Your task to perform on an android device: delete browsing data in the chrome app Image 0: 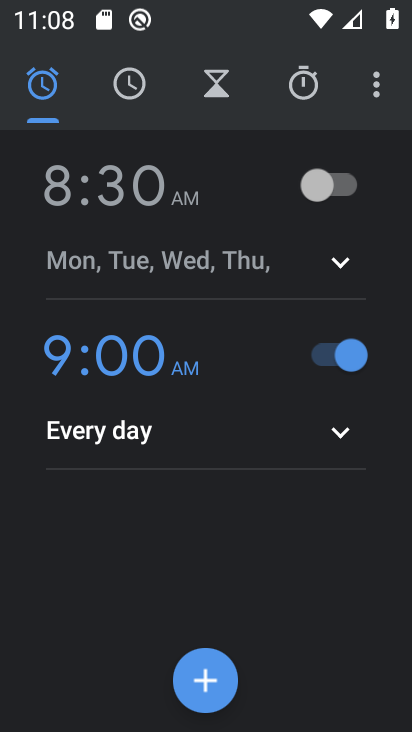
Step 0: press home button
Your task to perform on an android device: delete browsing data in the chrome app Image 1: 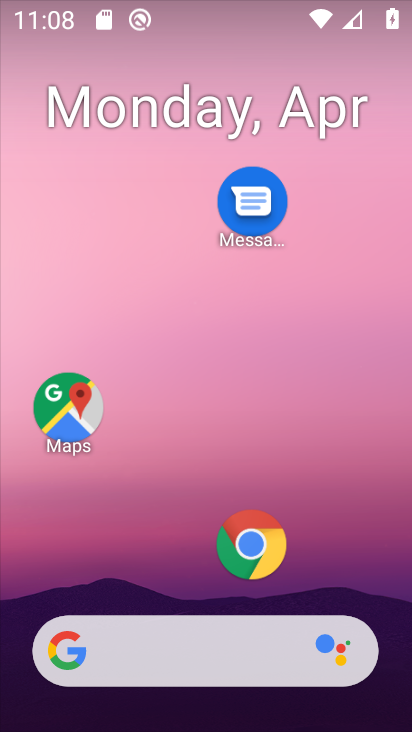
Step 1: click (249, 533)
Your task to perform on an android device: delete browsing data in the chrome app Image 2: 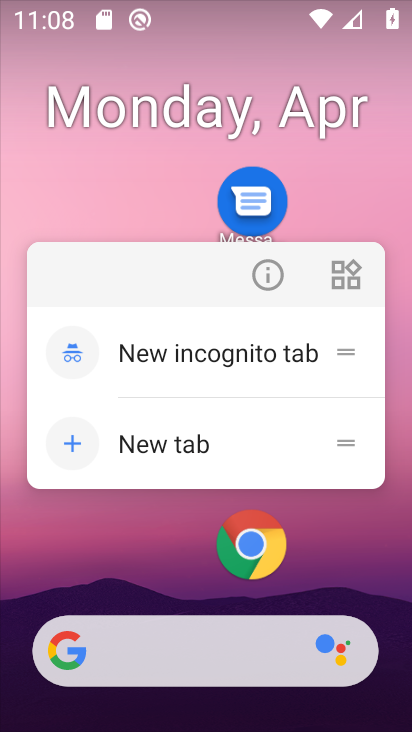
Step 2: drag from (174, 581) to (195, 104)
Your task to perform on an android device: delete browsing data in the chrome app Image 3: 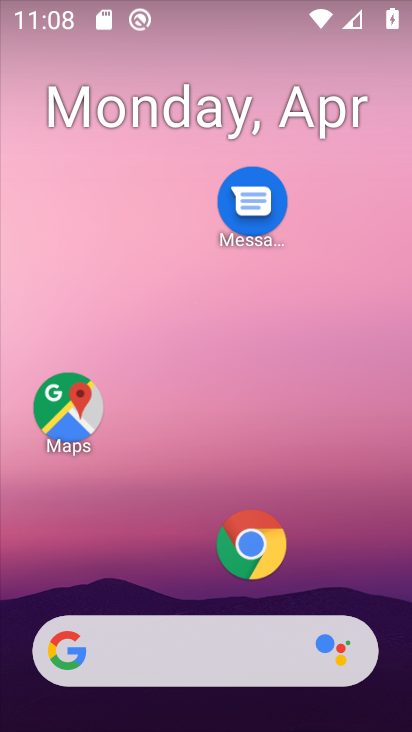
Step 3: drag from (186, 557) to (215, 113)
Your task to perform on an android device: delete browsing data in the chrome app Image 4: 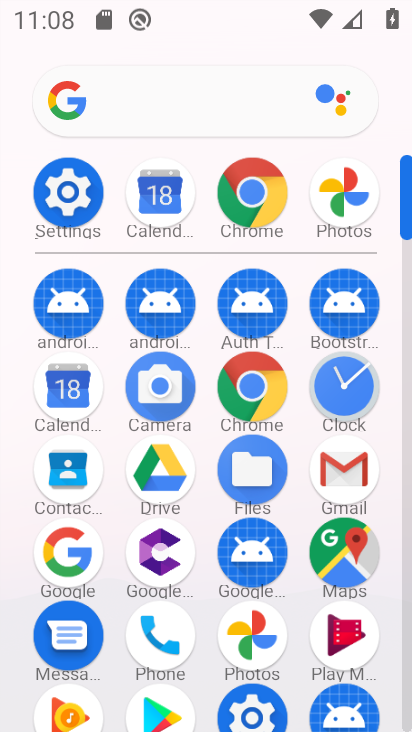
Step 4: click (254, 182)
Your task to perform on an android device: delete browsing data in the chrome app Image 5: 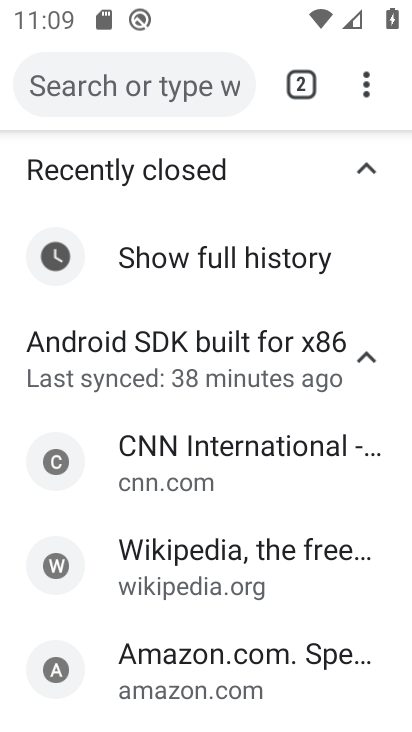
Step 5: click (363, 84)
Your task to perform on an android device: delete browsing data in the chrome app Image 6: 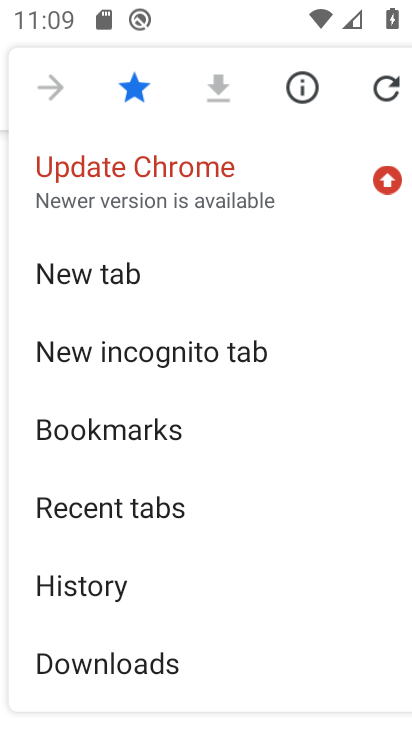
Step 6: click (134, 586)
Your task to perform on an android device: delete browsing data in the chrome app Image 7: 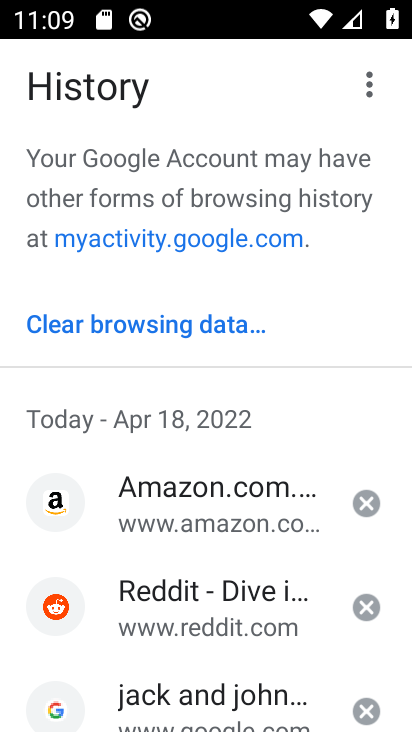
Step 7: click (146, 328)
Your task to perform on an android device: delete browsing data in the chrome app Image 8: 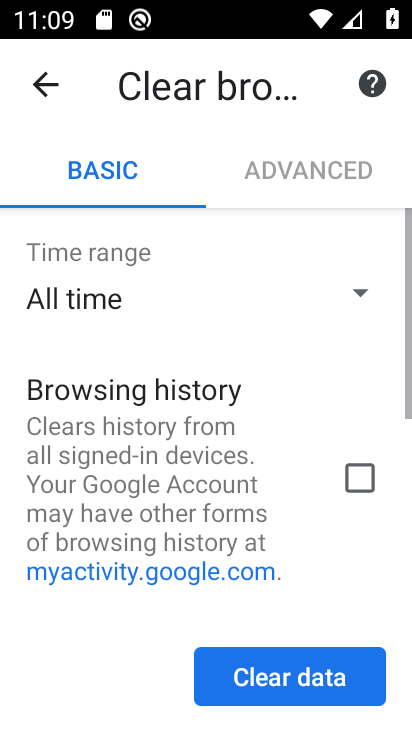
Step 8: click (350, 477)
Your task to perform on an android device: delete browsing data in the chrome app Image 9: 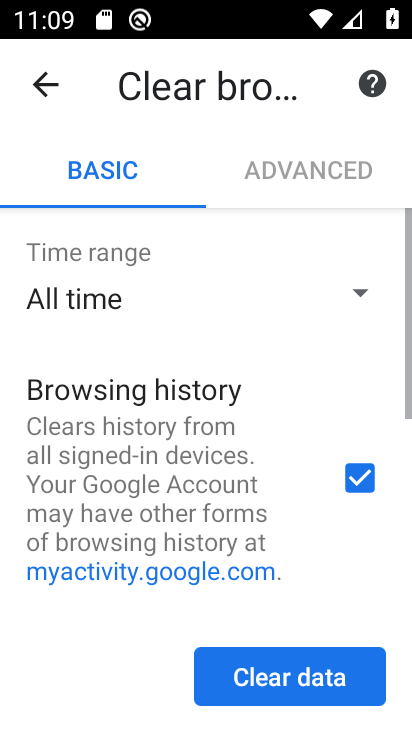
Step 9: drag from (176, 527) to (199, 148)
Your task to perform on an android device: delete browsing data in the chrome app Image 10: 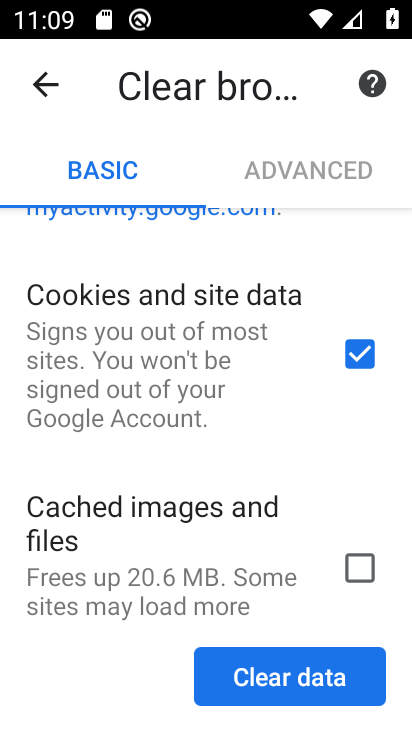
Step 10: click (363, 566)
Your task to perform on an android device: delete browsing data in the chrome app Image 11: 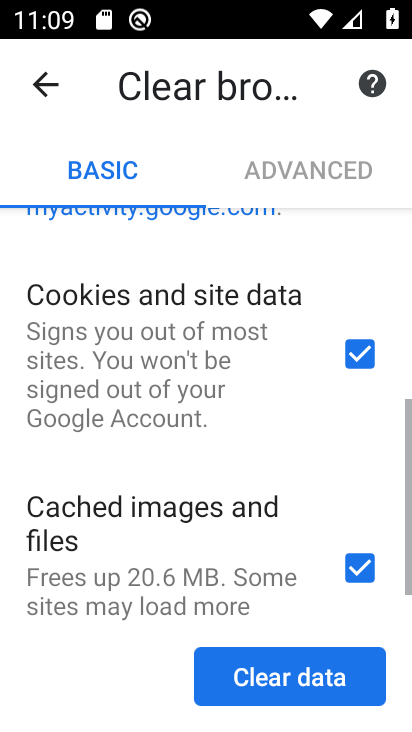
Step 11: drag from (145, 569) to (192, 182)
Your task to perform on an android device: delete browsing data in the chrome app Image 12: 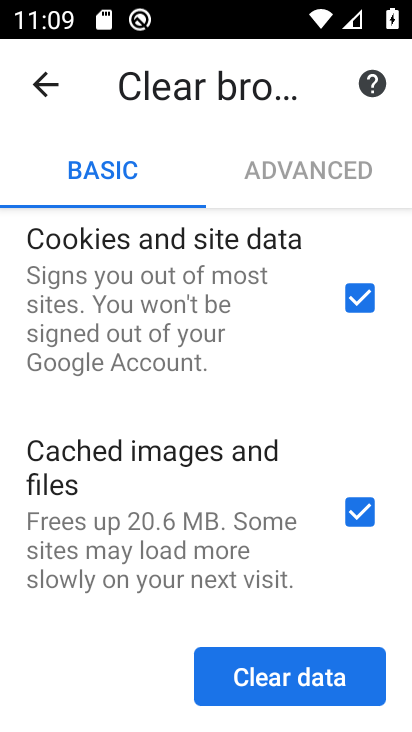
Step 12: drag from (213, 508) to (236, 195)
Your task to perform on an android device: delete browsing data in the chrome app Image 13: 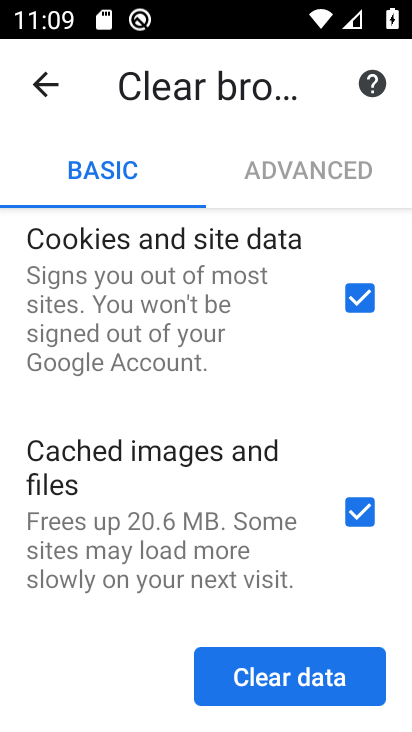
Step 13: click (293, 671)
Your task to perform on an android device: delete browsing data in the chrome app Image 14: 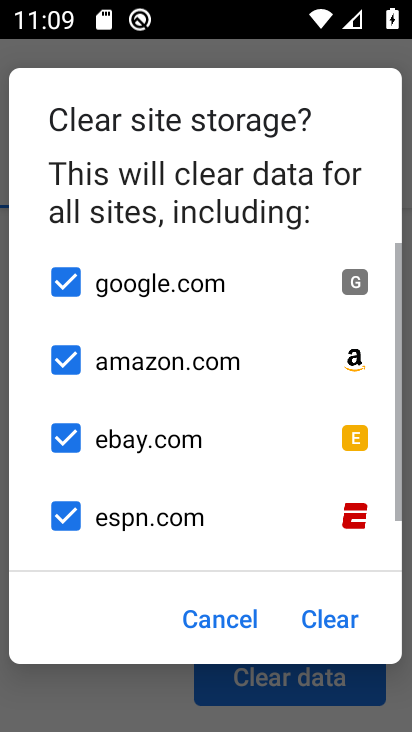
Step 14: click (332, 620)
Your task to perform on an android device: delete browsing data in the chrome app Image 15: 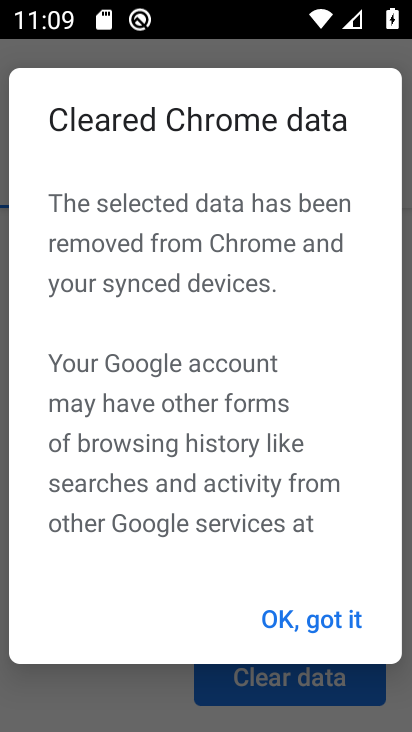
Step 15: click (327, 620)
Your task to perform on an android device: delete browsing data in the chrome app Image 16: 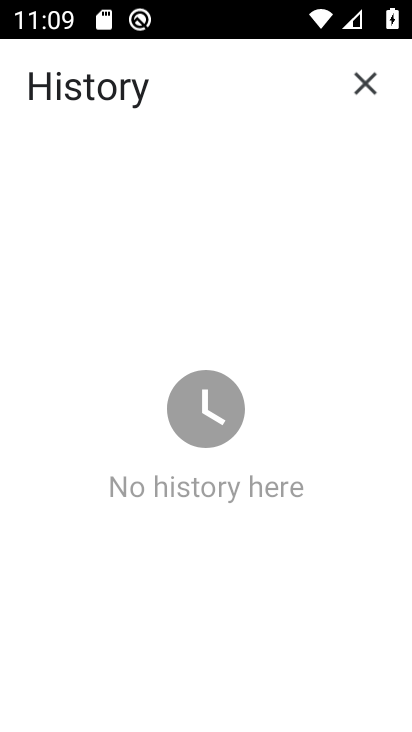
Step 16: task complete